Your task to perform on an android device: Go to Maps Image 0: 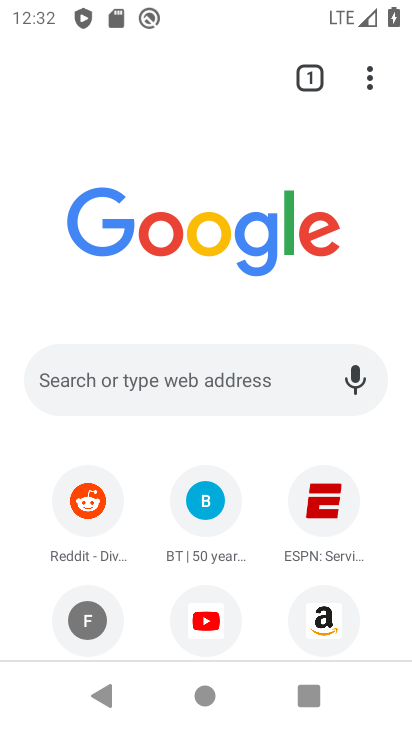
Step 0: press home button
Your task to perform on an android device: Go to Maps Image 1: 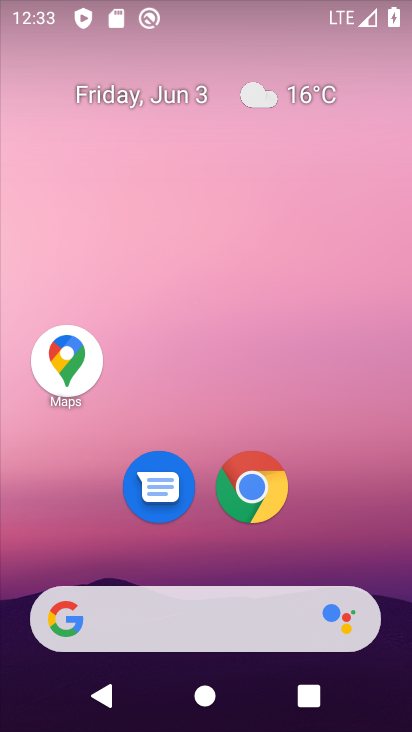
Step 1: click (71, 335)
Your task to perform on an android device: Go to Maps Image 2: 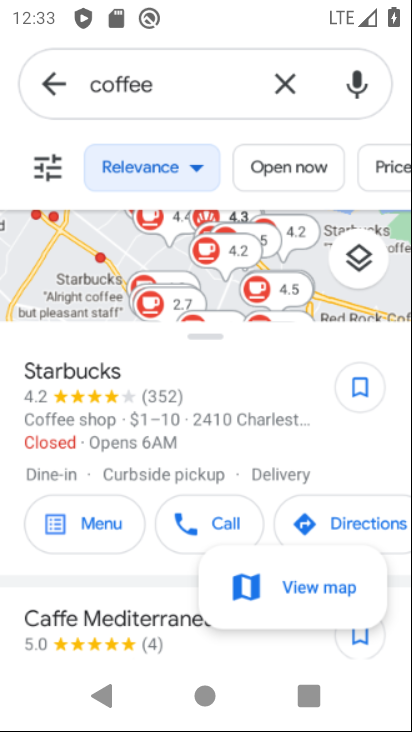
Step 2: click (281, 79)
Your task to perform on an android device: Go to Maps Image 3: 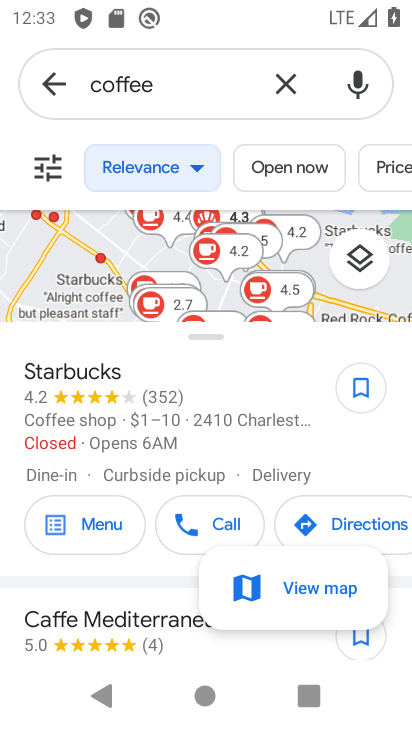
Step 3: click (284, 79)
Your task to perform on an android device: Go to Maps Image 4: 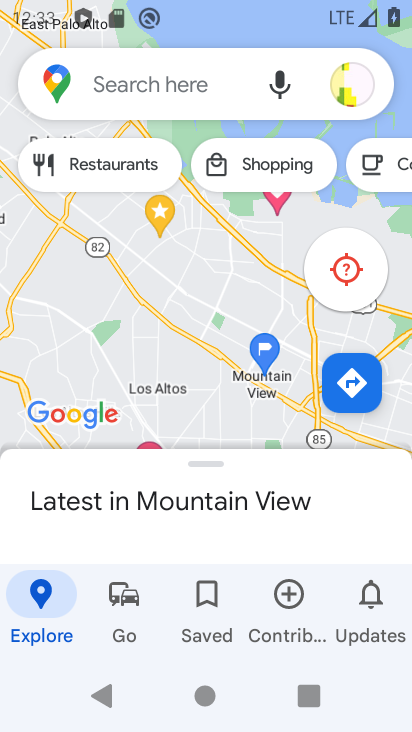
Step 4: task complete